Your task to perform on an android device: star an email in the gmail app Image 0: 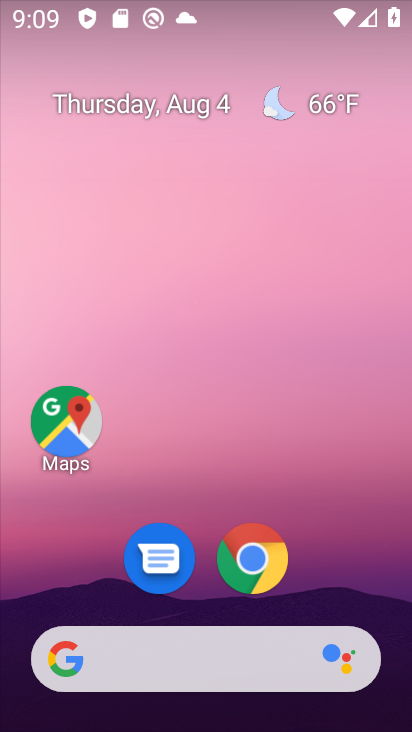
Step 0: drag from (339, 568) to (386, 457)
Your task to perform on an android device: star an email in the gmail app Image 1: 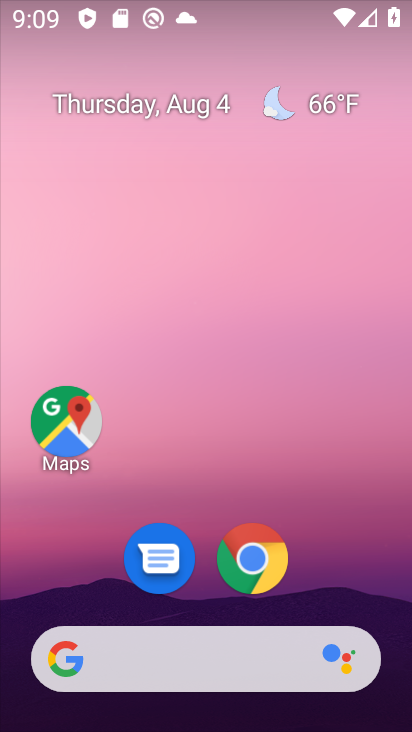
Step 1: drag from (322, 580) to (295, 1)
Your task to perform on an android device: star an email in the gmail app Image 2: 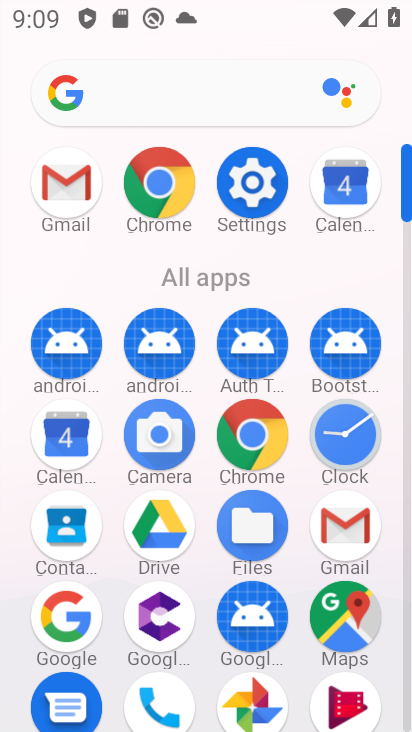
Step 2: click (346, 509)
Your task to perform on an android device: star an email in the gmail app Image 3: 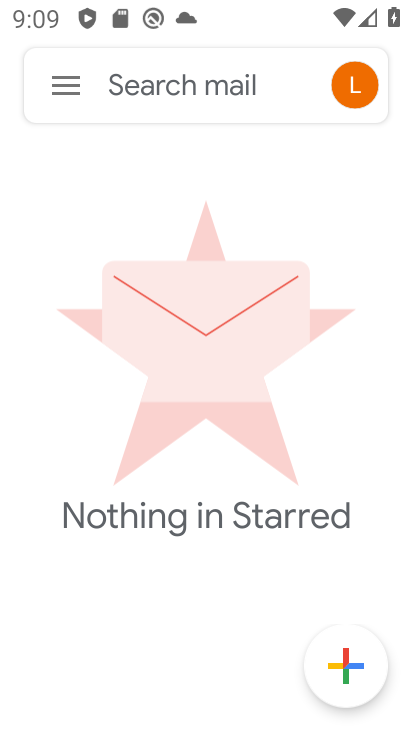
Step 3: click (72, 79)
Your task to perform on an android device: star an email in the gmail app Image 4: 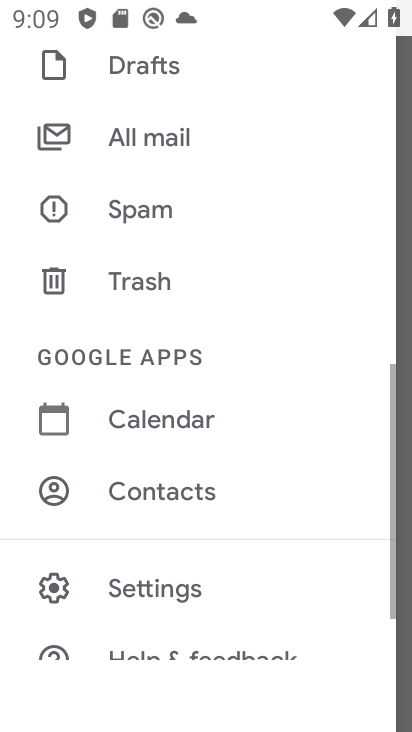
Step 4: click (168, 151)
Your task to perform on an android device: star an email in the gmail app Image 5: 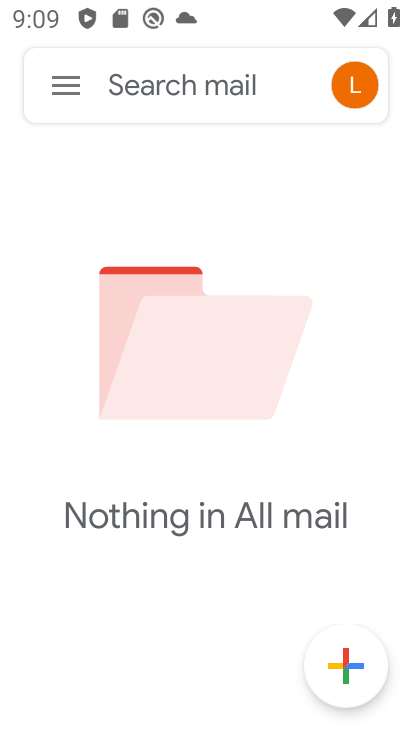
Step 5: task complete